Your task to perform on an android device: turn on wifi Image 0: 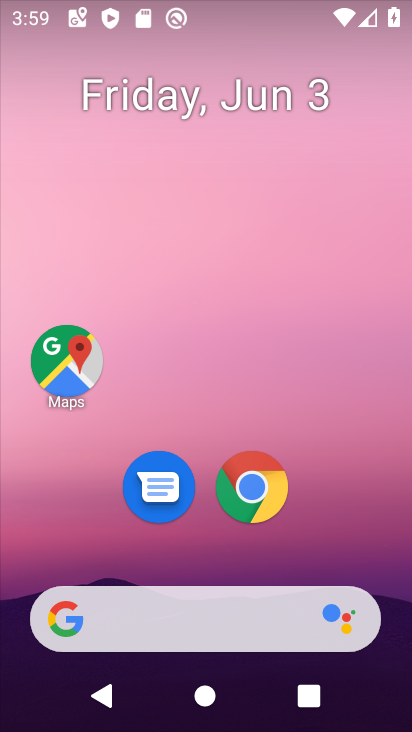
Step 0: click (256, 11)
Your task to perform on an android device: turn on wifi Image 1: 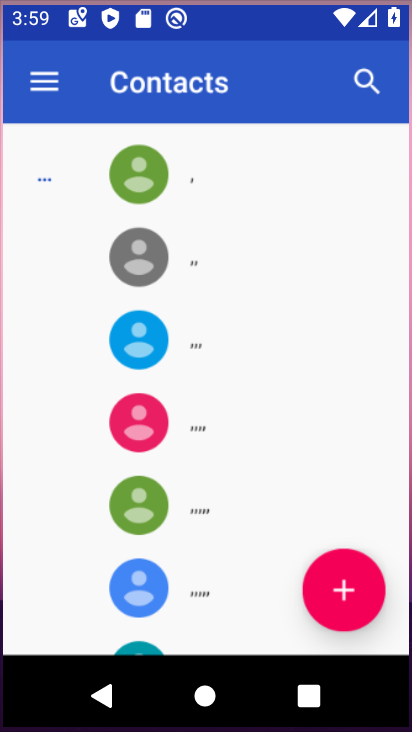
Step 1: drag from (229, 420) to (270, 55)
Your task to perform on an android device: turn on wifi Image 2: 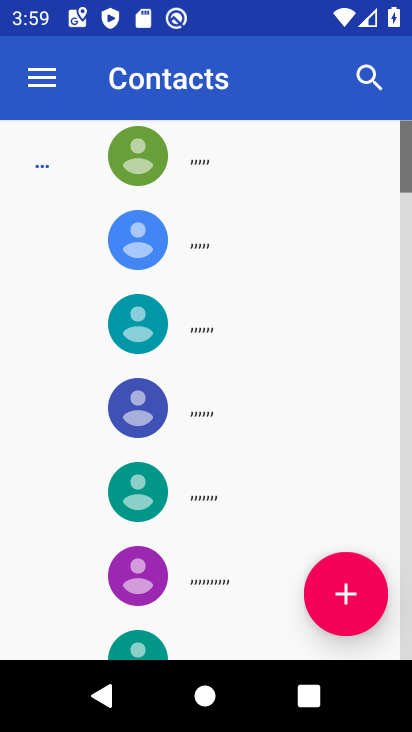
Step 2: press home button
Your task to perform on an android device: turn on wifi Image 3: 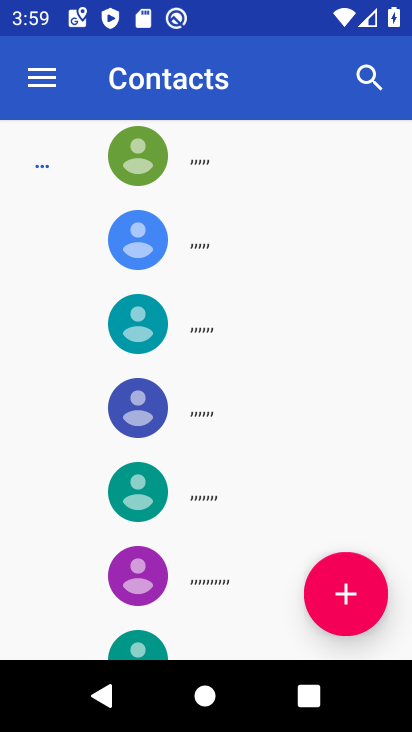
Step 3: press home button
Your task to perform on an android device: turn on wifi Image 4: 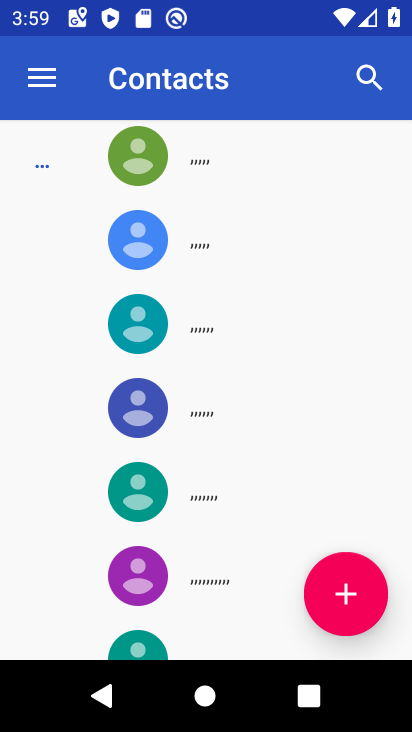
Step 4: drag from (259, 263) to (254, 11)
Your task to perform on an android device: turn on wifi Image 5: 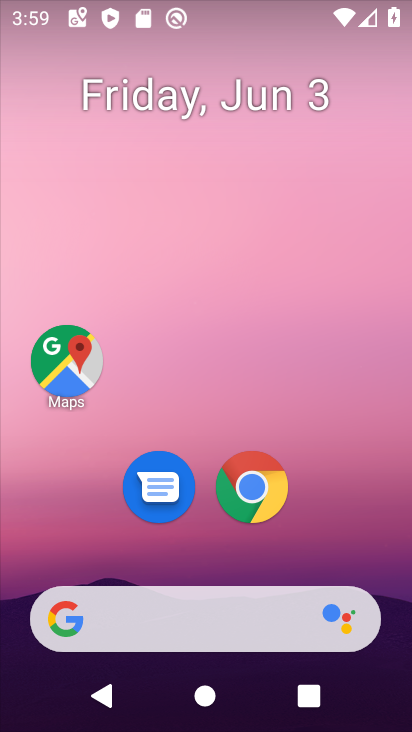
Step 5: drag from (221, 507) to (248, 52)
Your task to perform on an android device: turn on wifi Image 6: 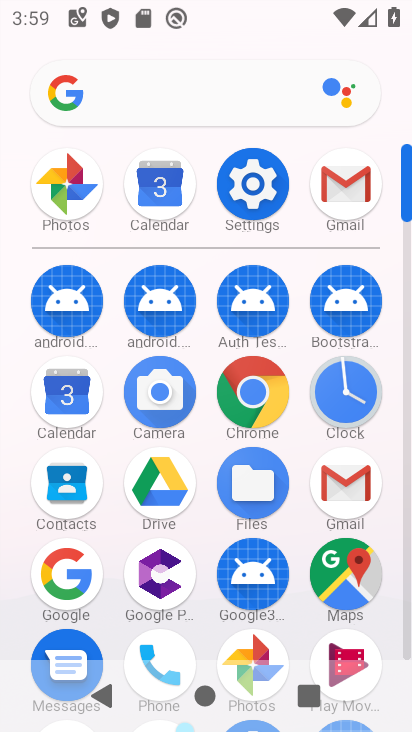
Step 6: click (255, 166)
Your task to perform on an android device: turn on wifi Image 7: 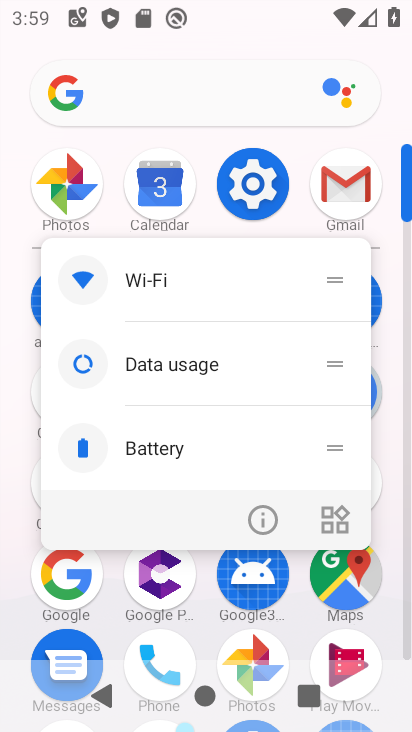
Step 7: click (269, 516)
Your task to perform on an android device: turn on wifi Image 8: 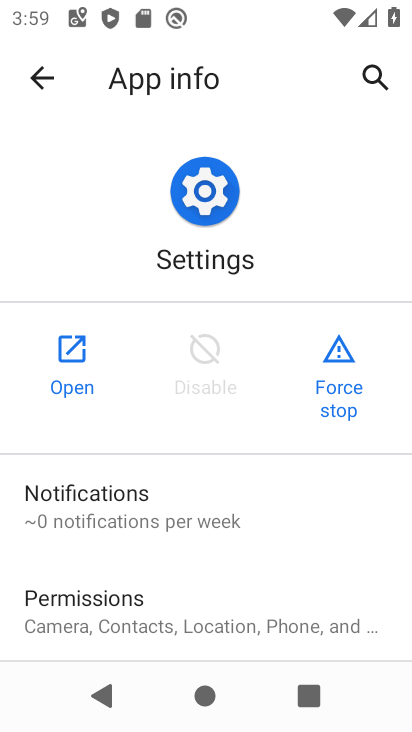
Step 8: click (84, 369)
Your task to perform on an android device: turn on wifi Image 9: 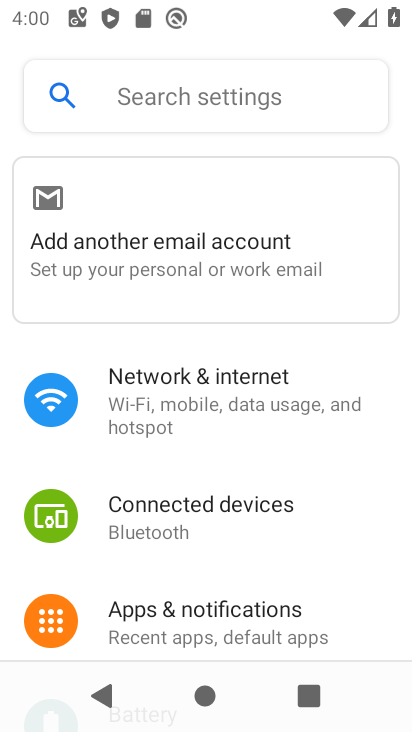
Step 9: click (183, 411)
Your task to perform on an android device: turn on wifi Image 10: 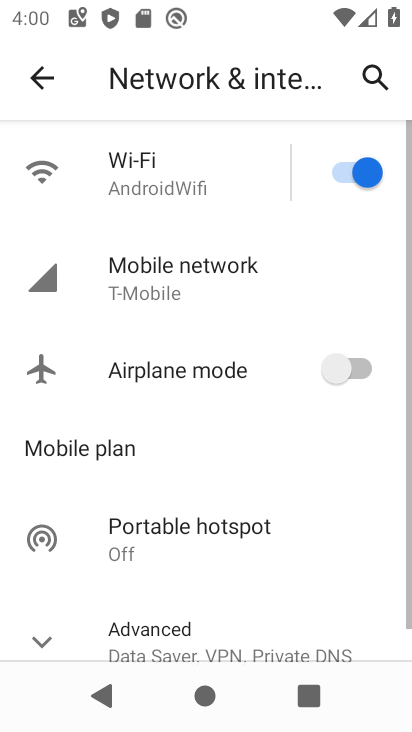
Step 10: click (189, 193)
Your task to perform on an android device: turn on wifi Image 11: 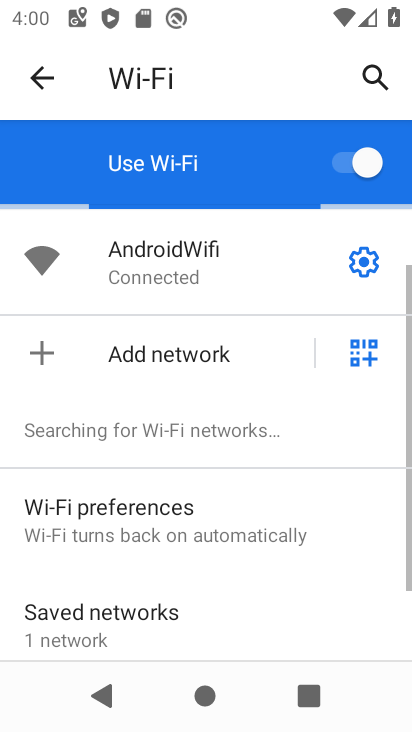
Step 11: task complete